Your task to perform on an android device: Open settings Image 0: 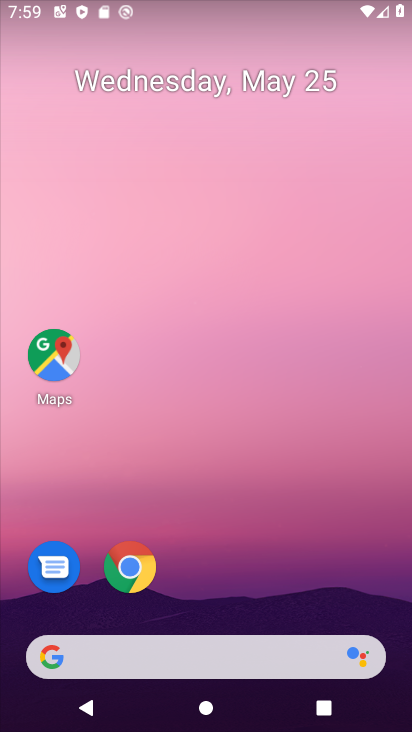
Step 0: drag from (382, 584) to (272, 282)
Your task to perform on an android device: Open settings Image 1: 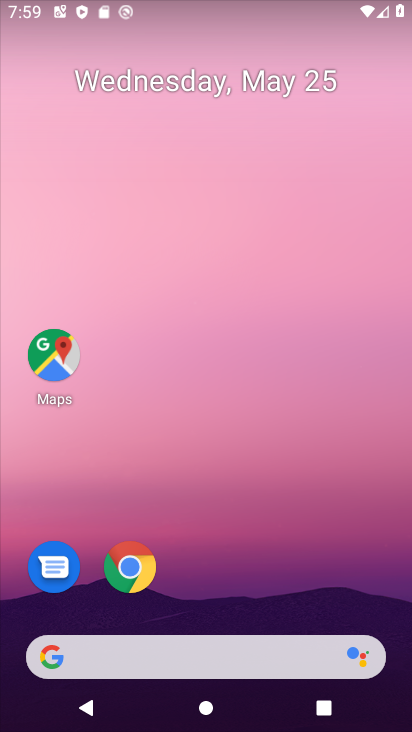
Step 1: drag from (325, 566) to (223, 2)
Your task to perform on an android device: Open settings Image 2: 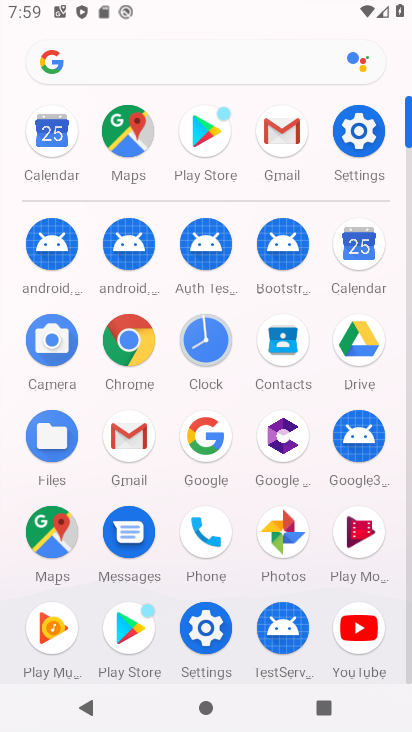
Step 2: click (376, 177)
Your task to perform on an android device: Open settings Image 3: 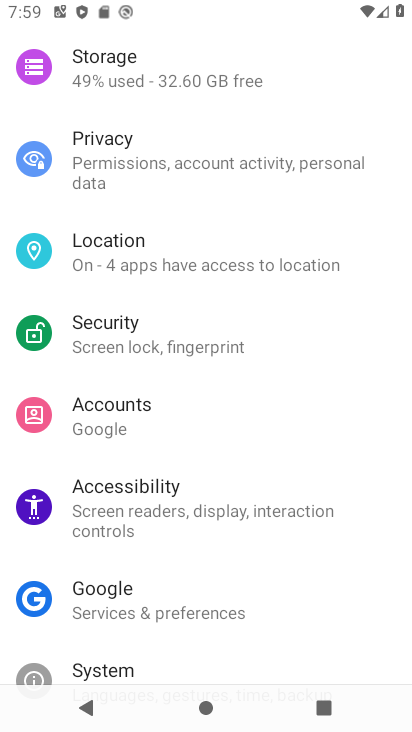
Step 3: task complete